Your task to perform on an android device: toggle notifications settings in the gmail app Image 0: 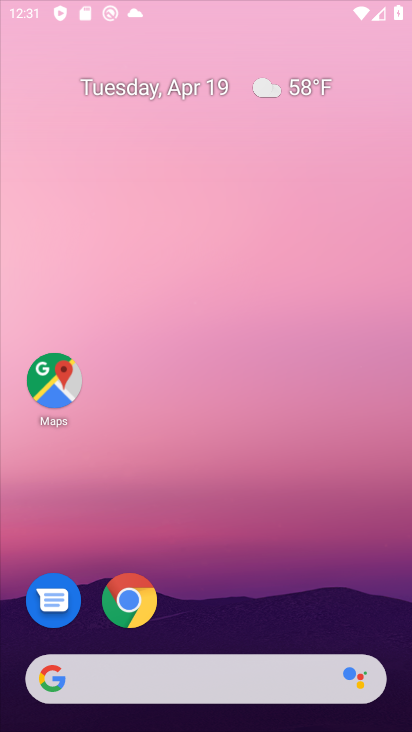
Step 0: click (279, 224)
Your task to perform on an android device: toggle notifications settings in the gmail app Image 1: 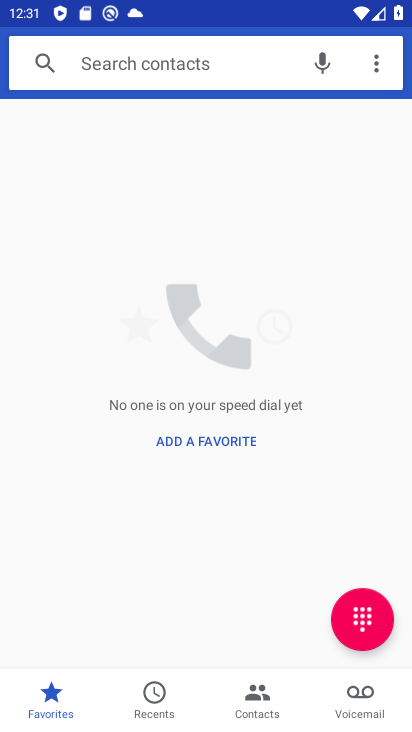
Step 1: press home button
Your task to perform on an android device: toggle notifications settings in the gmail app Image 2: 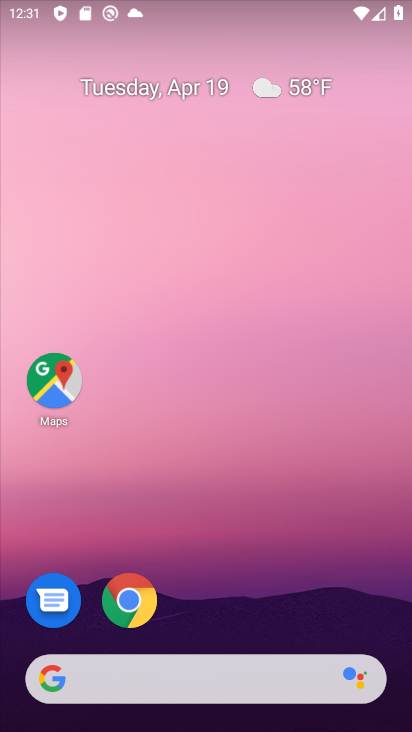
Step 2: drag from (306, 632) to (282, 341)
Your task to perform on an android device: toggle notifications settings in the gmail app Image 3: 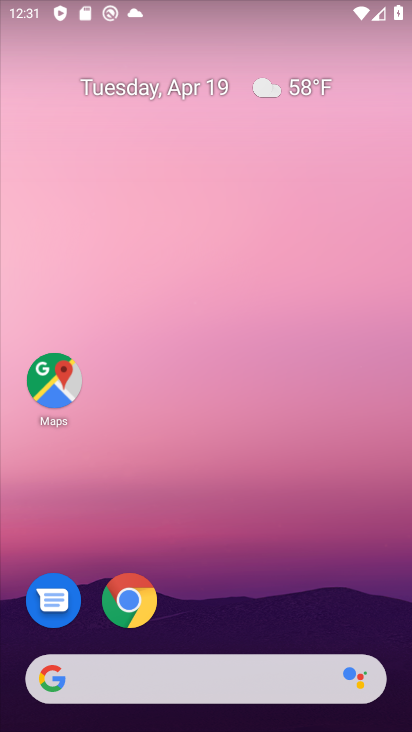
Step 3: drag from (322, 520) to (241, 203)
Your task to perform on an android device: toggle notifications settings in the gmail app Image 4: 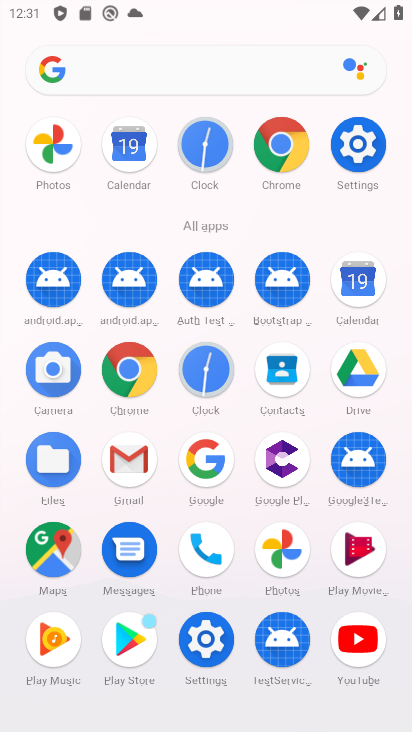
Step 4: click (134, 447)
Your task to perform on an android device: toggle notifications settings in the gmail app Image 5: 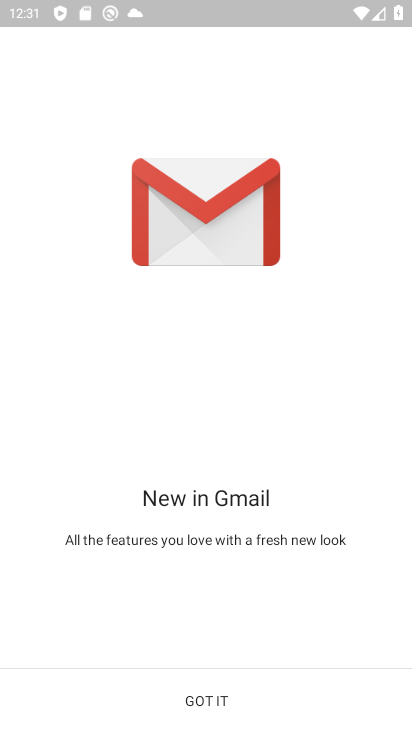
Step 5: click (213, 709)
Your task to perform on an android device: toggle notifications settings in the gmail app Image 6: 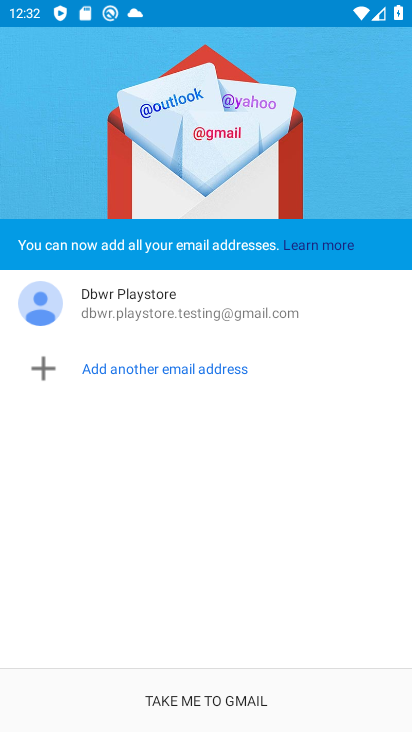
Step 6: click (213, 708)
Your task to perform on an android device: toggle notifications settings in the gmail app Image 7: 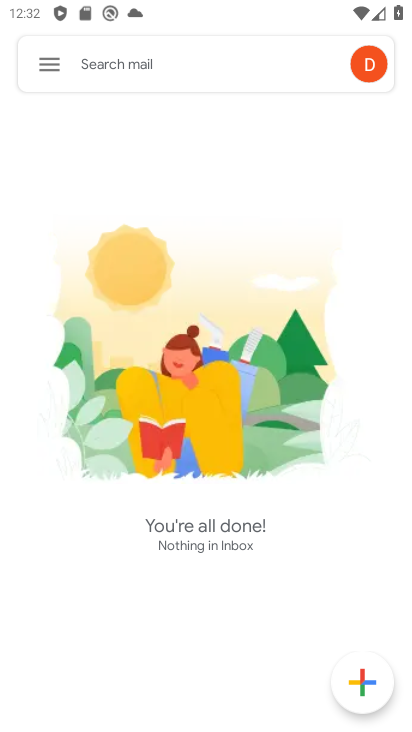
Step 7: click (50, 61)
Your task to perform on an android device: toggle notifications settings in the gmail app Image 8: 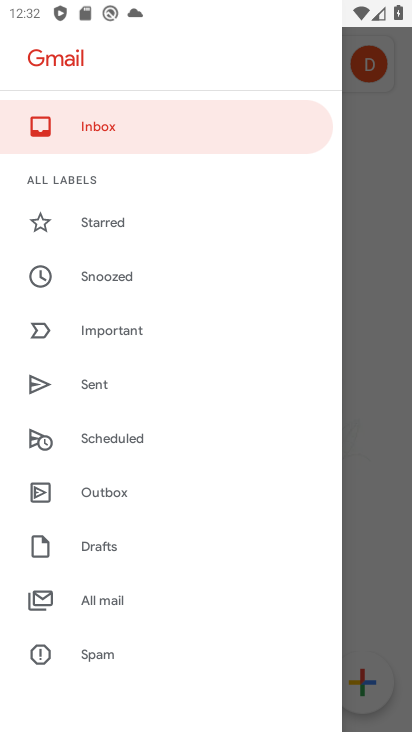
Step 8: drag from (149, 617) to (167, 271)
Your task to perform on an android device: toggle notifications settings in the gmail app Image 9: 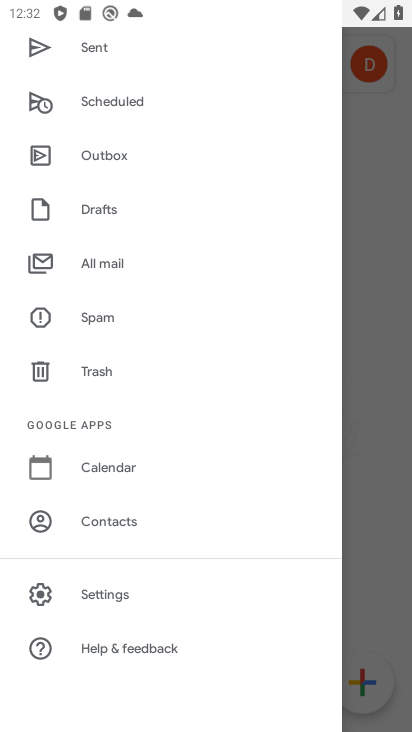
Step 9: click (156, 576)
Your task to perform on an android device: toggle notifications settings in the gmail app Image 10: 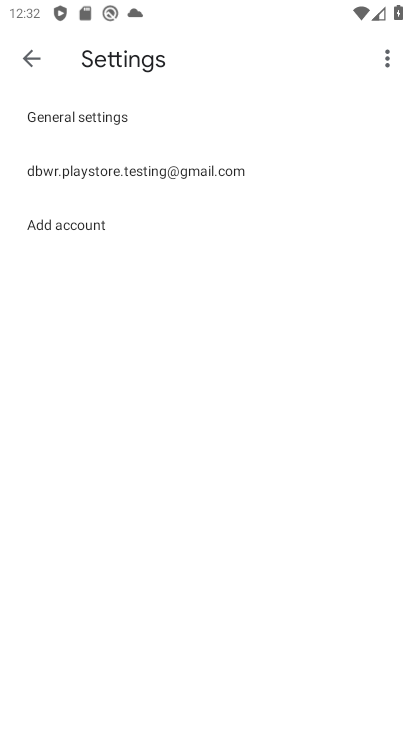
Step 10: click (225, 179)
Your task to perform on an android device: toggle notifications settings in the gmail app Image 11: 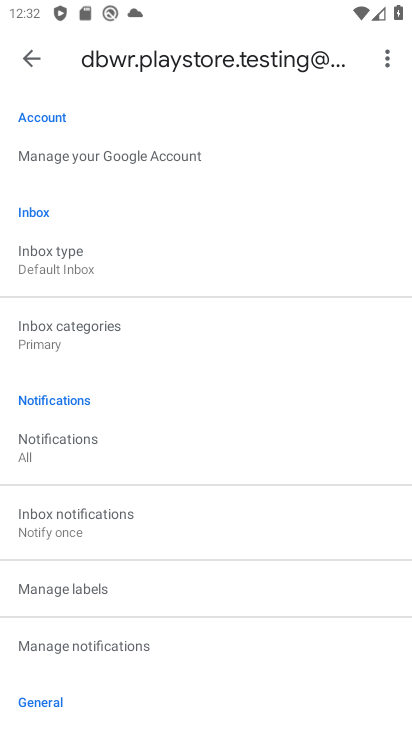
Step 11: drag from (194, 607) to (158, 397)
Your task to perform on an android device: toggle notifications settings in the gmail app Image 12: 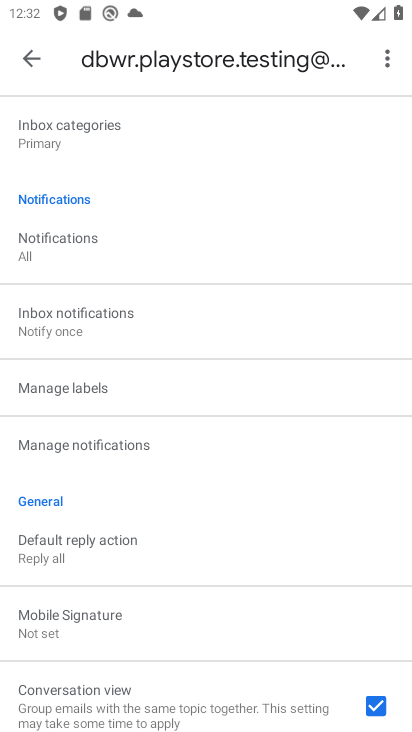
Step 12: drag from (184, 604) to (127, 327)
Your task to perform on an android device: toggle notifications settings in the gmail app Image 13: 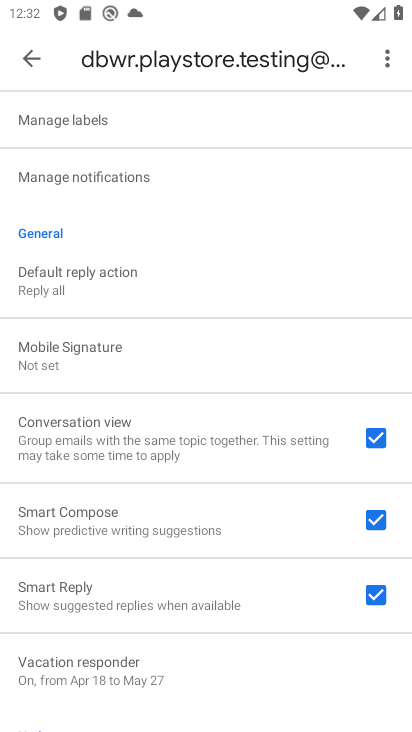
Step 13: drag from (165, 525) to (110, 580)
Your task to perform on an android device: toggle notifications settings in the gmail app Image 14: 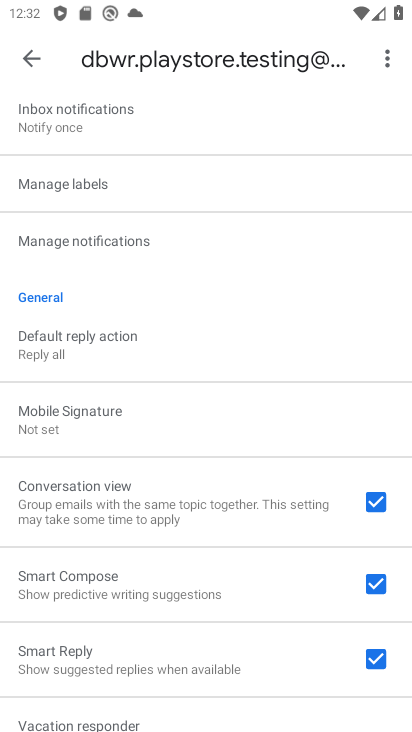
Step 14: click (121, 246)
Your task to perform on an android device: toggle notifications settings in the gmail app Image 15: 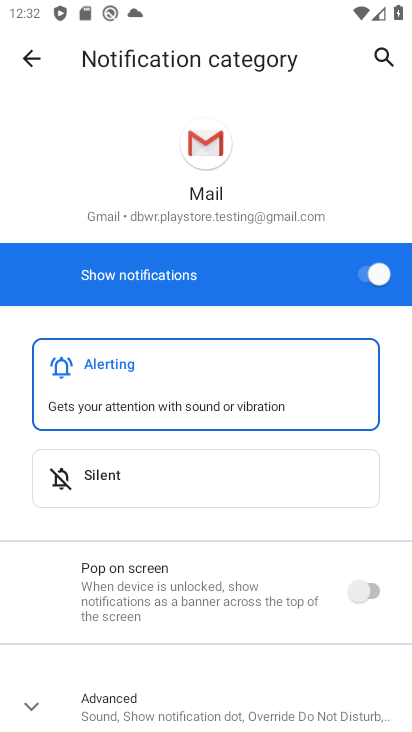
Step 15: drag from (396, 530) to (383, 390)
Your task to perform on an android device: toggle notifications settings in the gmail app Image 16: 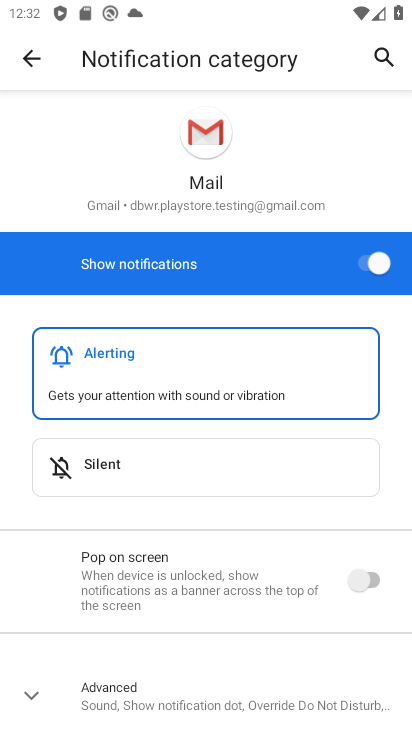
Step 16: click (334, 486)
Your task to perform on an android device: toggle notifications settings in the gmail app Image 17: 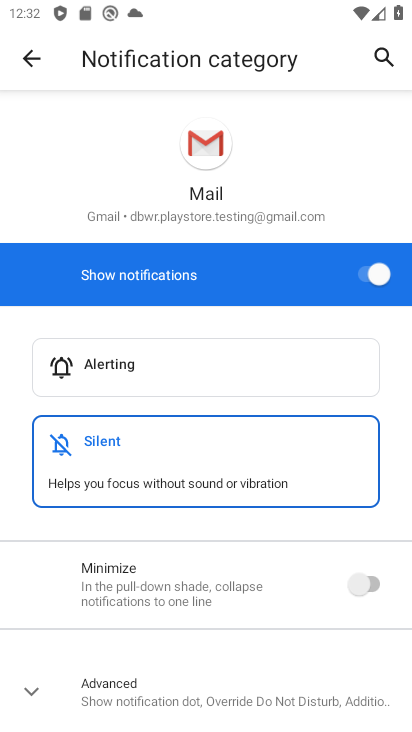
Step 17: click (364, 577)
Your task to perform on an android device: toggle notifications settings in the gmail app Image 18: 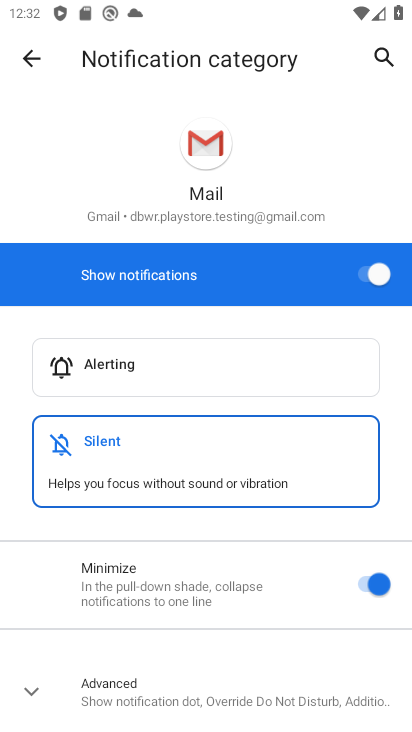
Step 18: task complete